Your task to perform on an android device: Open location settings Image 0: 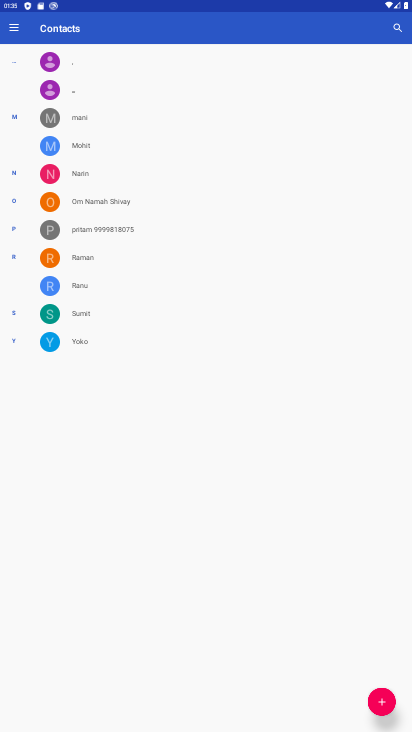
Step 0: press home button
Your task to perform on an android device: Open location settings Image 1: 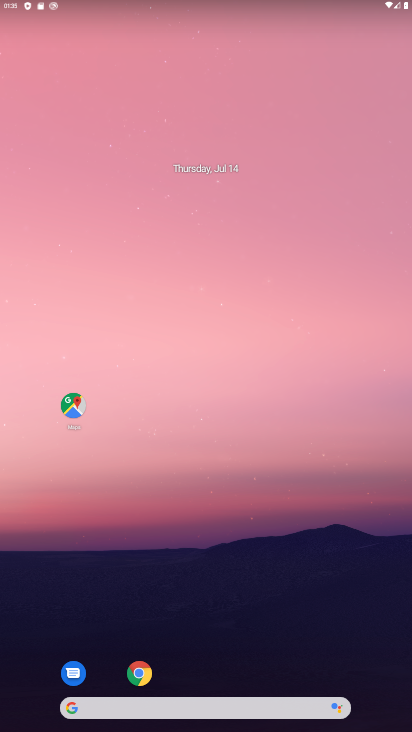
Step 1: drag from (255, 641) to (235, 186)
Your task to perform on an android device: Open location settings Image 2: 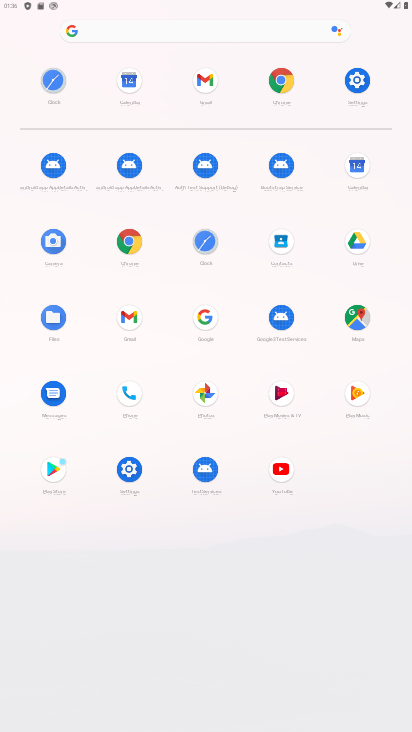
Step 2: click (344, 96)
Your task to perform on an android device: Open location settings Image 3: 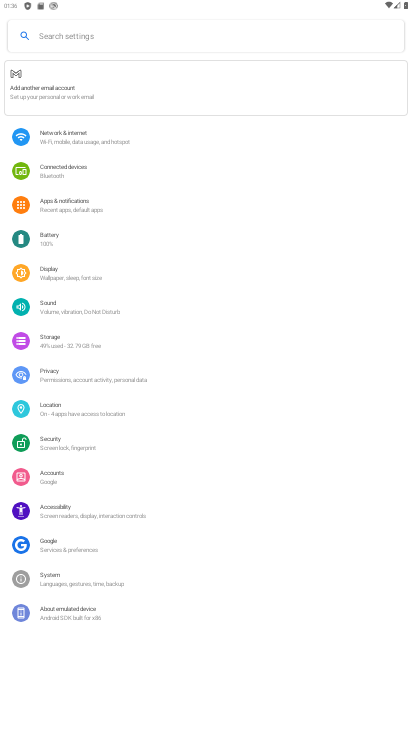
Step 3: click (61, 402)
Your task to perform on an android device: Open location settings Image 4: 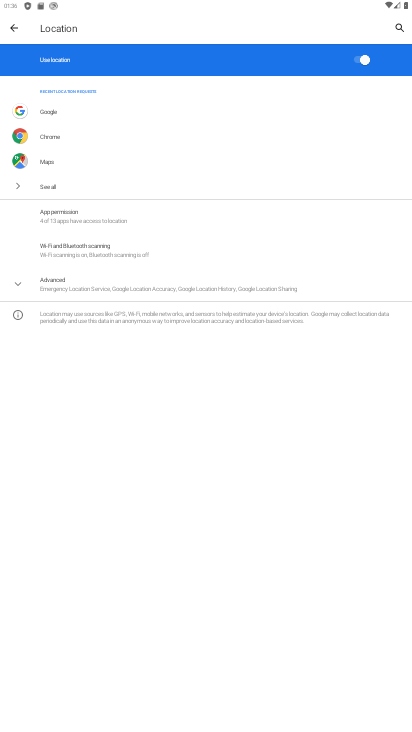
Step 4: task complete